Your task to perform on an android device: move a message to another label in the gmail app Image 0: 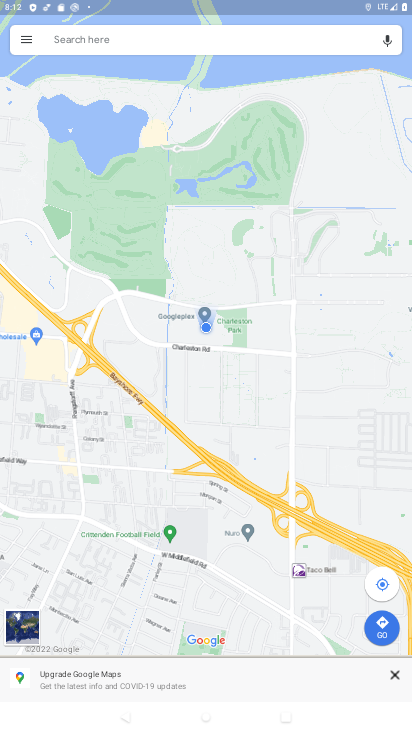
Step 0: press home button
Your task to perform on an android device: move a message to another label in the gmail app Image 1: 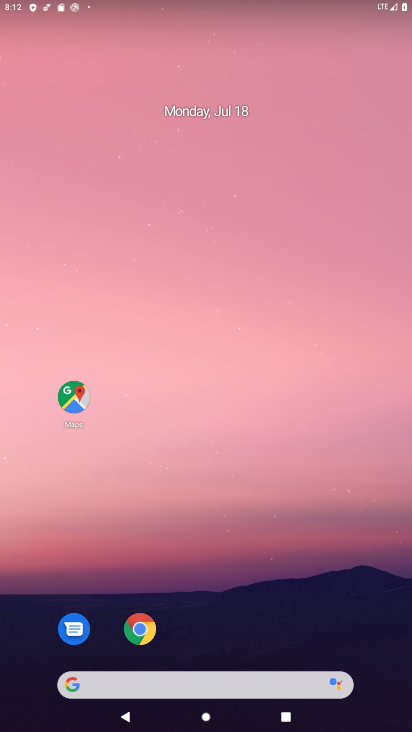
Step 1: drag from (210, 588) to (232, 150)
Your task to perform on an android device: move a message to another label in the gmail app Image 2: 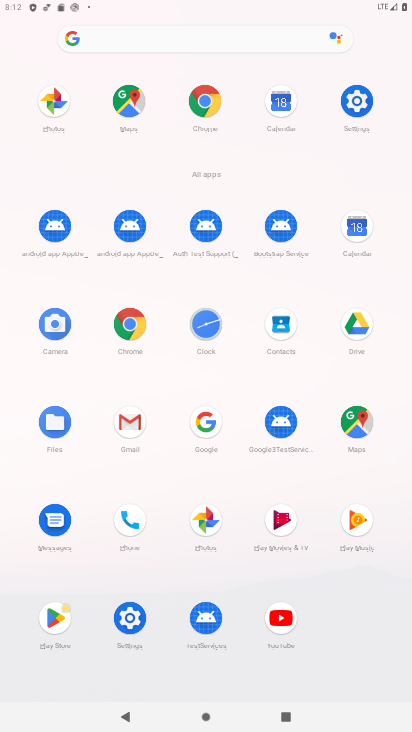
Step 2: click (132, 434)
Your task to perform on an android device: move a message to another label in the gmail app Image 3: 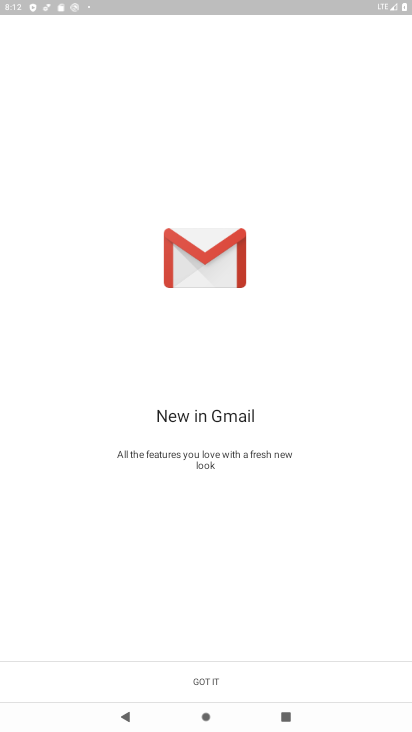
Step 3: click (228, 679)
Your task to perform on an android device: move a message to another label in the gmail app Image 4: 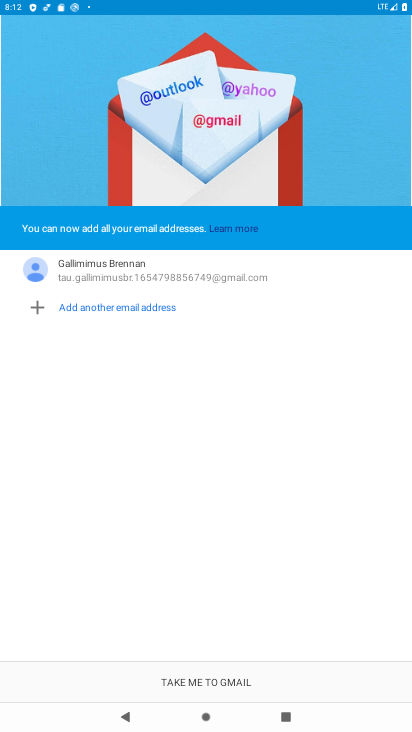
Step 4: click (229, 679)
Your task to perform on an android device: move a message to another label in the gmail app Image 5: 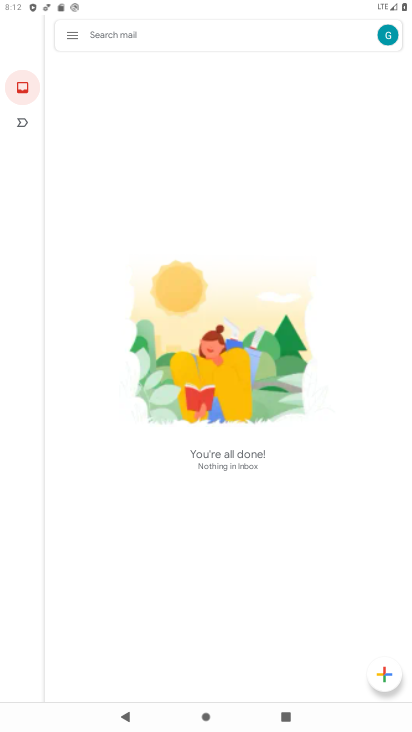
Step 5: task complete